Your task to perform on an android device: turn on showing notifications on the lock screen Image 0: 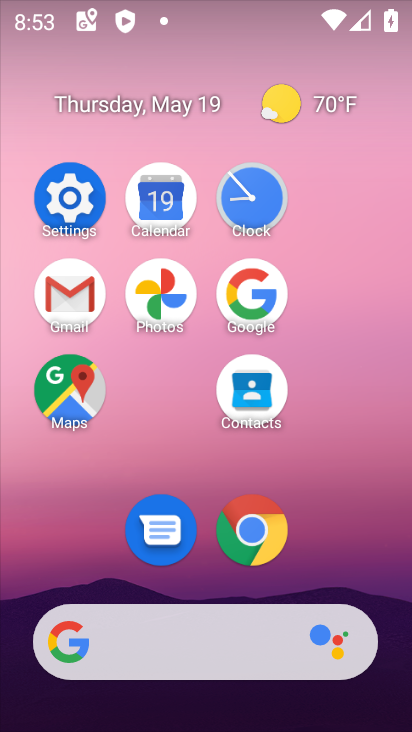
Step 0: click (77, 185)
Your task to perform on an android device: turn on showing notifications on the lock screen Image 1: 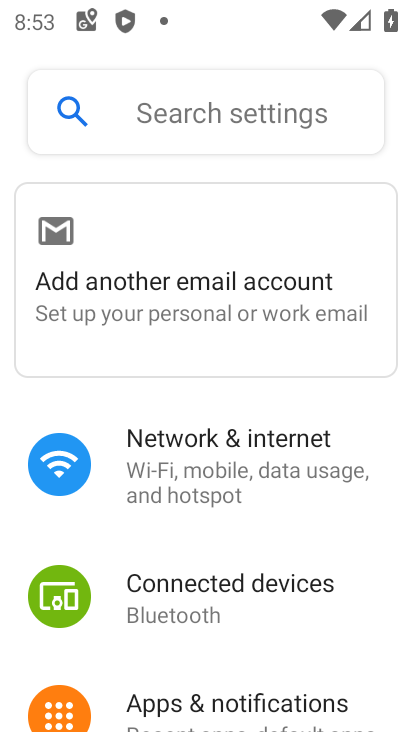
Step 1: drag from (217, 610) to (182, 254)
Your task to perform on an android device: turn on showing notifications on the lock screen Image 2: 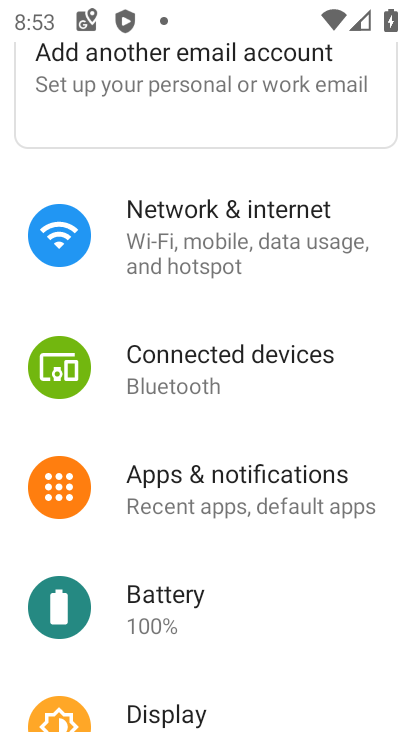
Step 2: click (250, 519)
Your task to perform on an android device: turn on showing notifications on the lock screen Image 3: 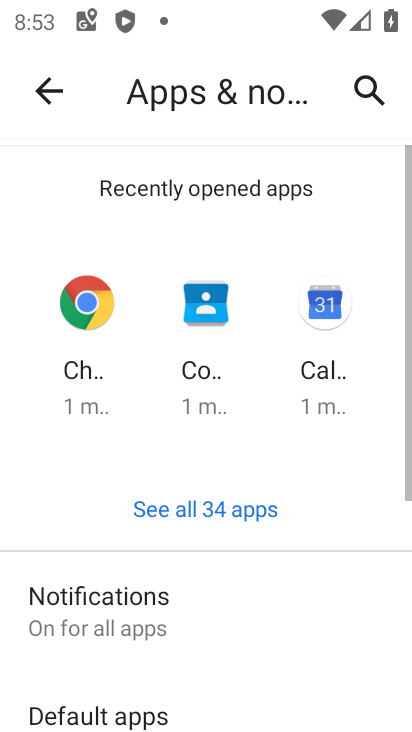
Step 3: drag from (235, 597) to (217, 192)
Your task to perform on an android device: turn on showing notifications on the lock screen Image 4: 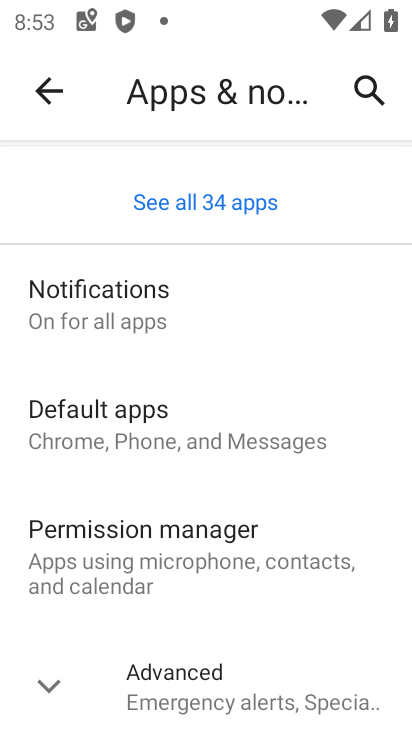
Step 4: click (183, 307)
Your task to perform on an android device: turn on showing notifications on the lock screen Image 5: 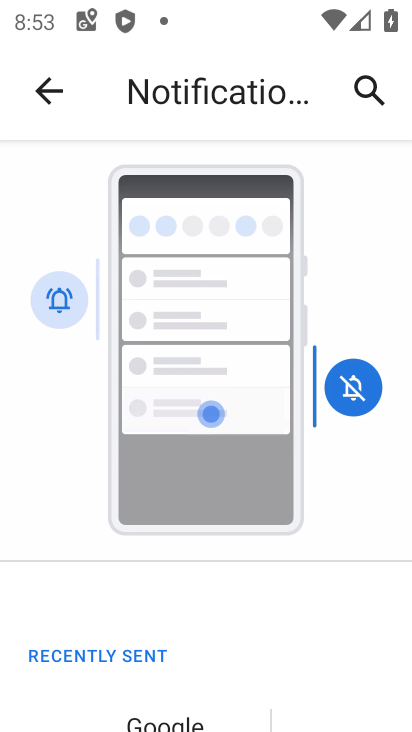
Step 5: drag from (250, 583) to (231, 180)
Your task to perform on an android device: turn on showing notifications on the lock screen Image 6: 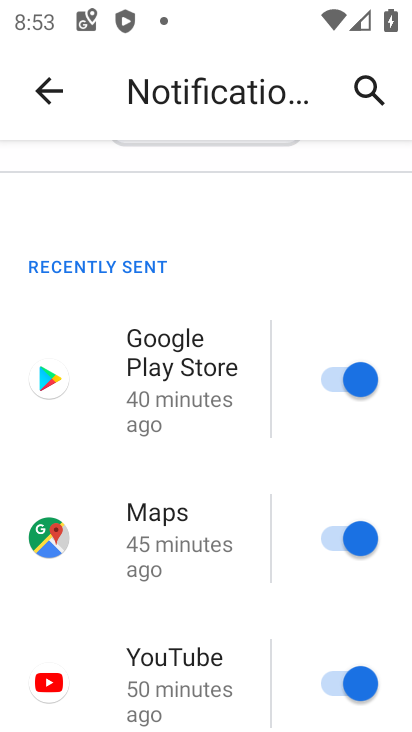
Step 6: drag from (238, 570) to (203, 116)
Your task to perform on an android device: turn on showing notifications on the lock screen Image 7: 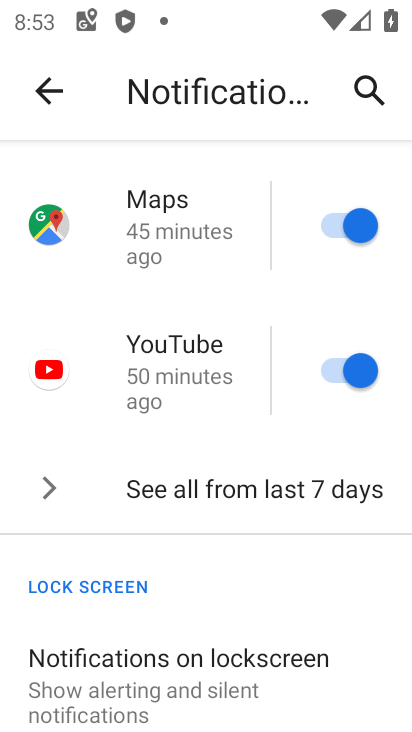
Step 7: click (242, 648)
Your task to perform on an android device: turn on showing notifications on the lock screen Image 8: 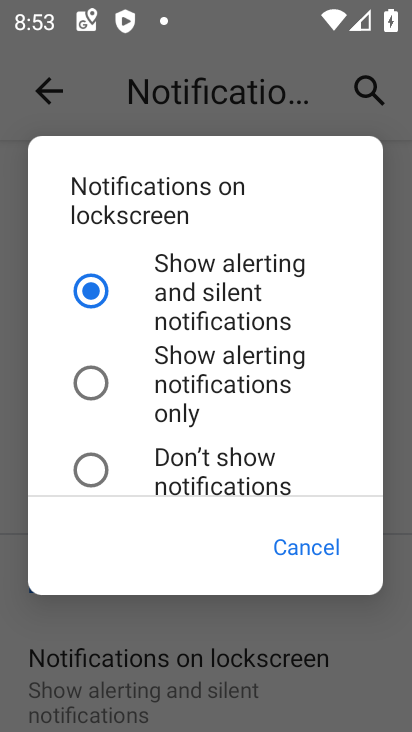
Step 8: task complete